Your task to perform on an android device: Go to notification settings Image 0: 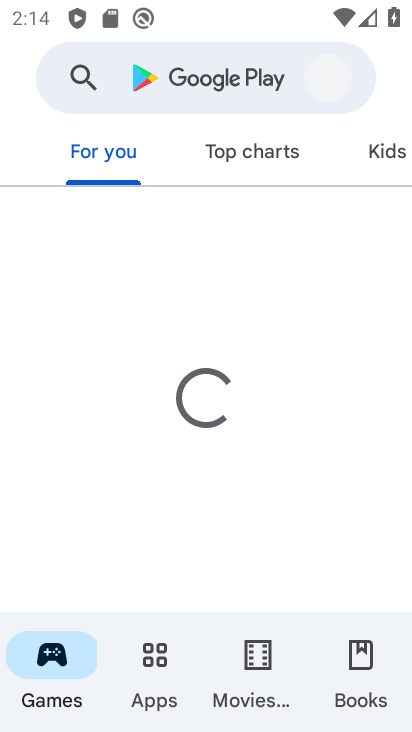
Step 0: press home button
Your task to perform on an android device: Go to notification settings Image 1: 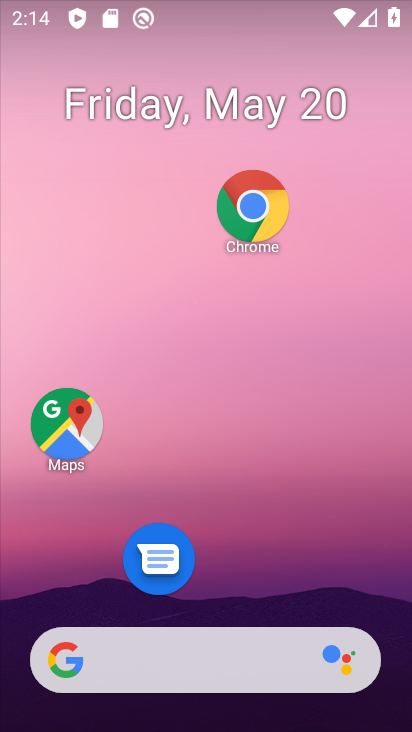
Step 1: drag from (227, 617) to (192, 24)
Your task to perform on an android device: Go to notification settings Image 2: 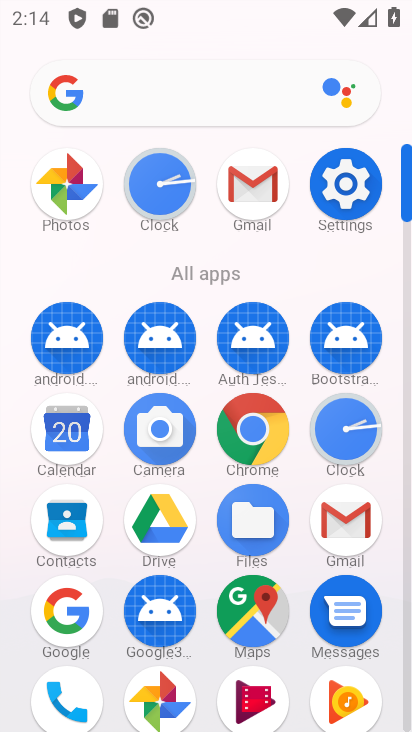
Step 2: click (328, 193)
Your task to perform on an android device: Go to notification settings Image 3: 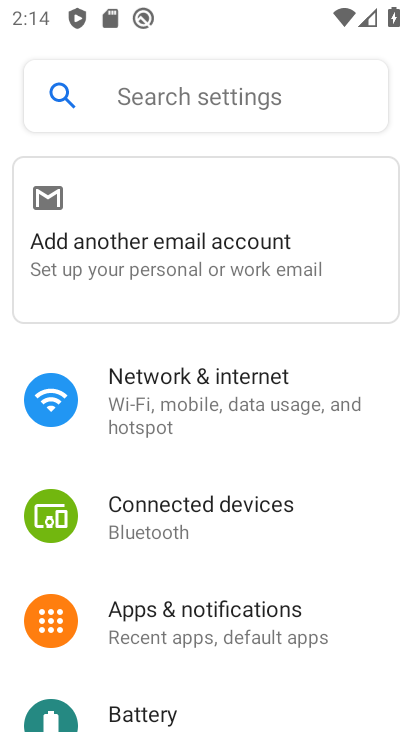
Step 3: click (220, 630)
Your task to perform on an android device: Go to notification settings Image 4: 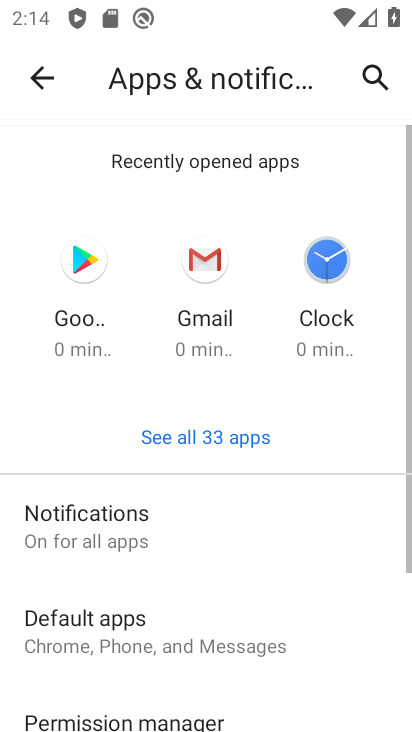
Step 4: click (126, 520)
Your task to perform on an android device: Go to notification settings Image 5: 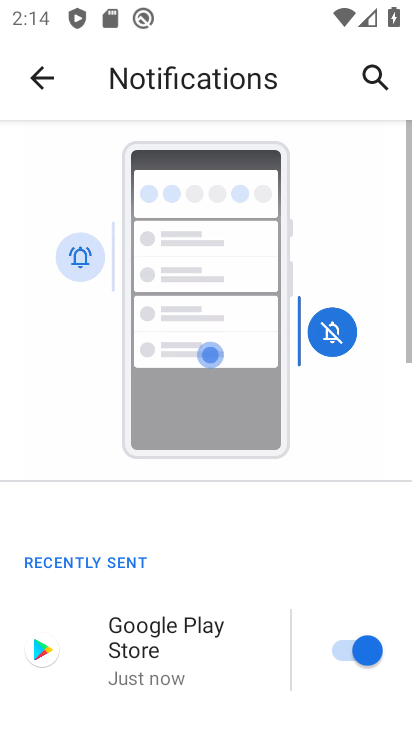
Step 5: task complete